Your task to perform on an android device: toggle sleep mode Image 0: 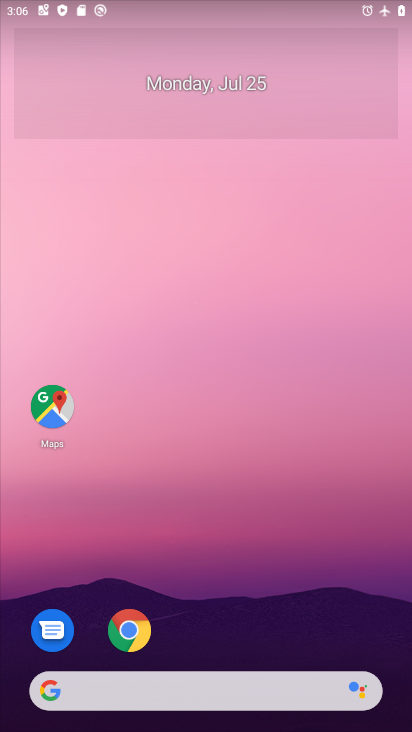
Step 0: task complete